Your task to perform on an android device: Check the news Image 0: 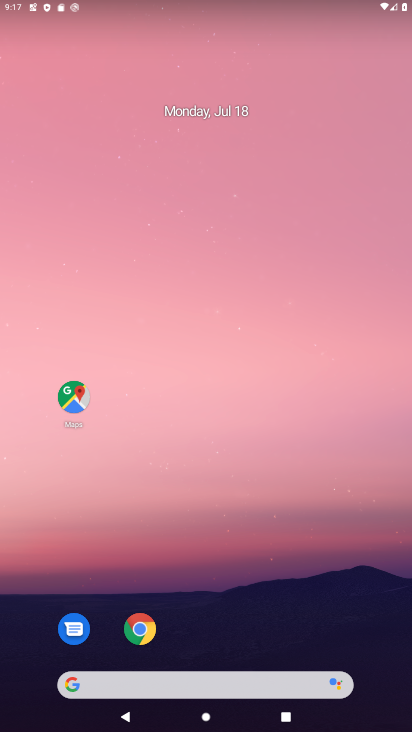
Step 0: drag from (323, 570) to (329, 89)
Your task to perform on an android device: Check the news Image 1: 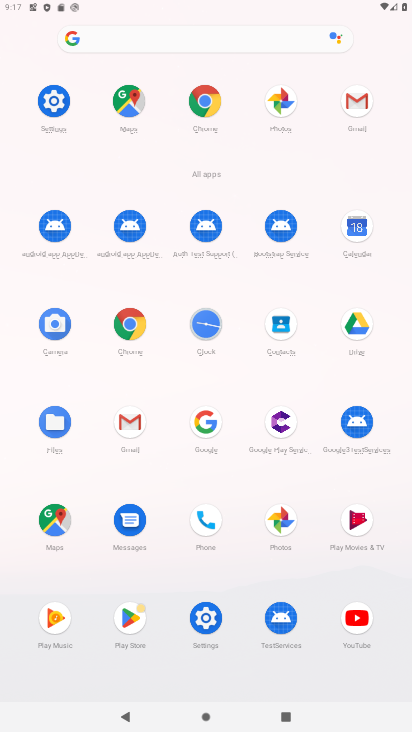
Step 1: click (208, 106)
Your task to perform on an android device: Check the news Image 2: 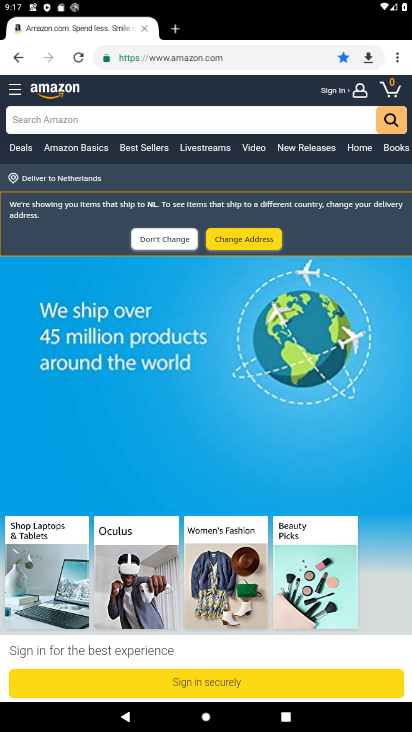
Step 2: click (214, 61)
Your task to perform on an android device: Check the news Image 3: 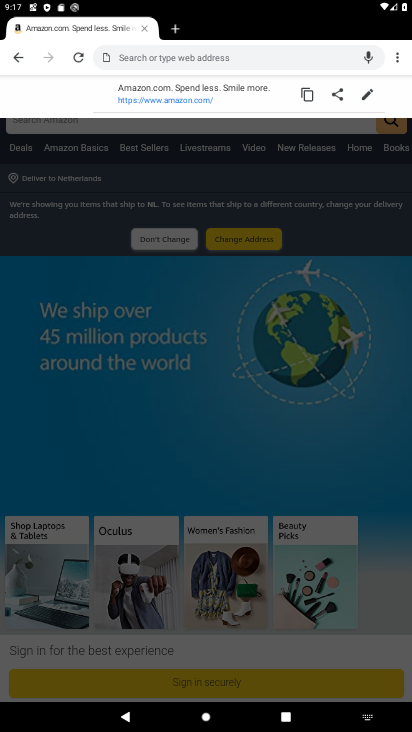
Step 3: type "news"
Your task to perform on an android device: Check the news Image 4: 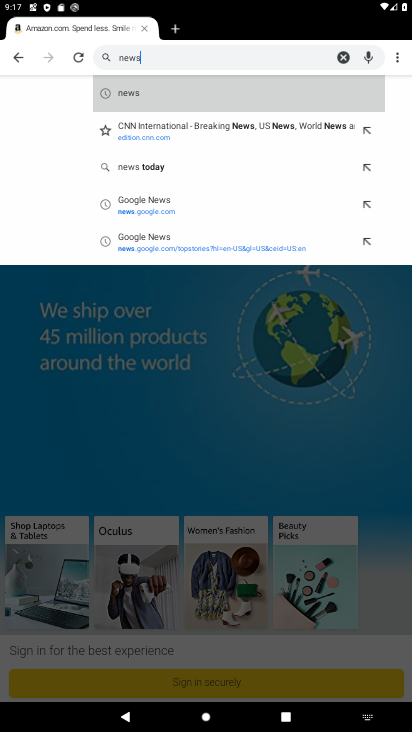
Step 4: click (133, 92)
Your task to perform on an android device: Check the news Image 5: 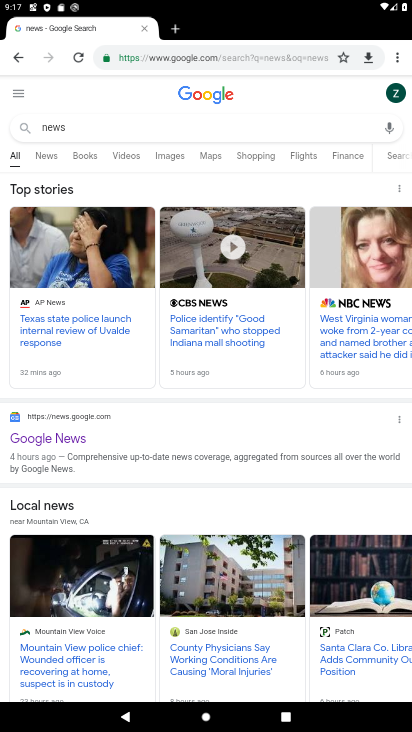
Step 5: click (71, 447)
Your task to perform on an android device: Check the news Image 6: 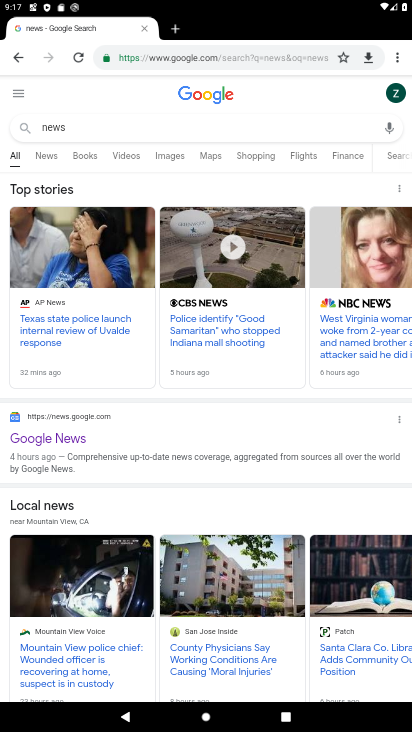
Step 6: click (74, 438)
Your task to perform on an android device: Check the news Image 7: 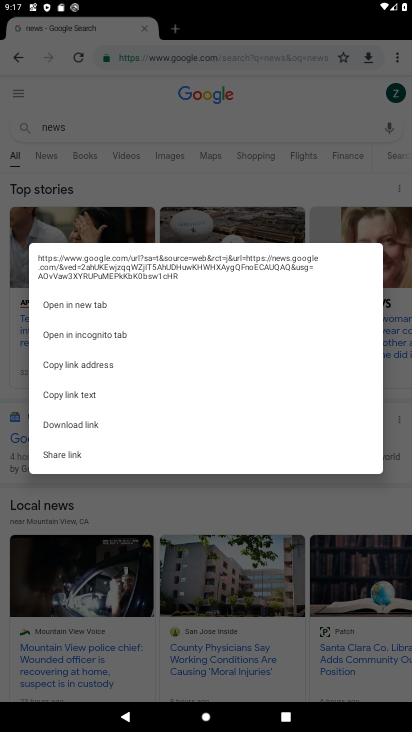
Step 7: click (100, 508)
Your task to perform on an android device: Check the news Image 8: 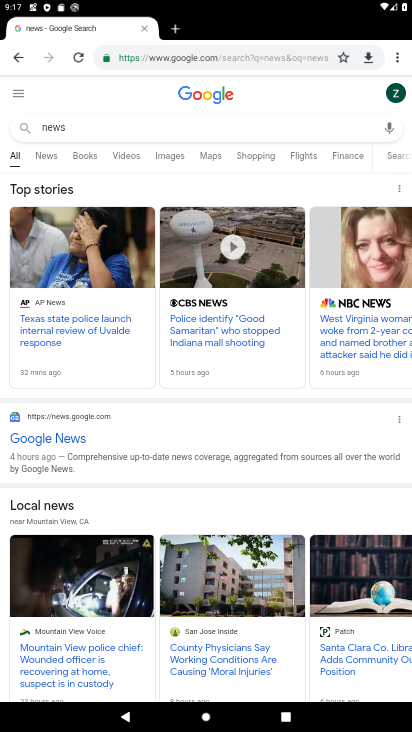
Step 8: click (51, 447)
Your task to perform on an android device: Check the news Image 9: 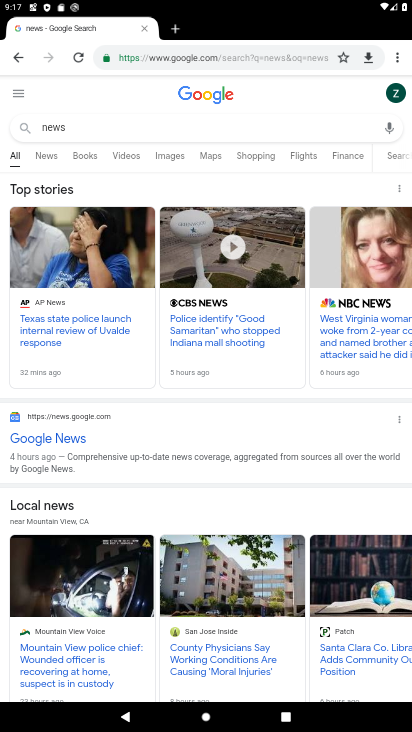
Step 9: click (55, 439)
Your task to perform on an android device: Check the news Image 10: 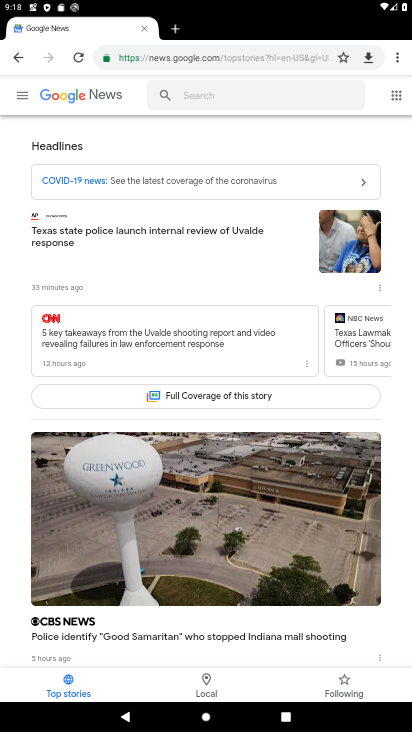
Step 10: task complete